Your task to perform on an android device: add a contact Image 0: 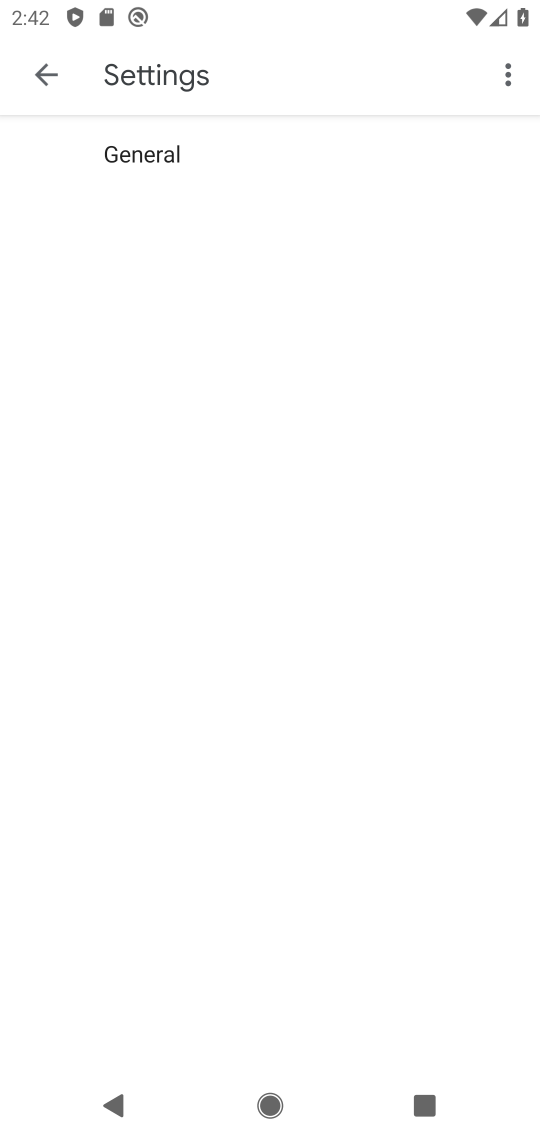
Step 0: press home button
Your task to perform on an android device: add a contact Image 1: 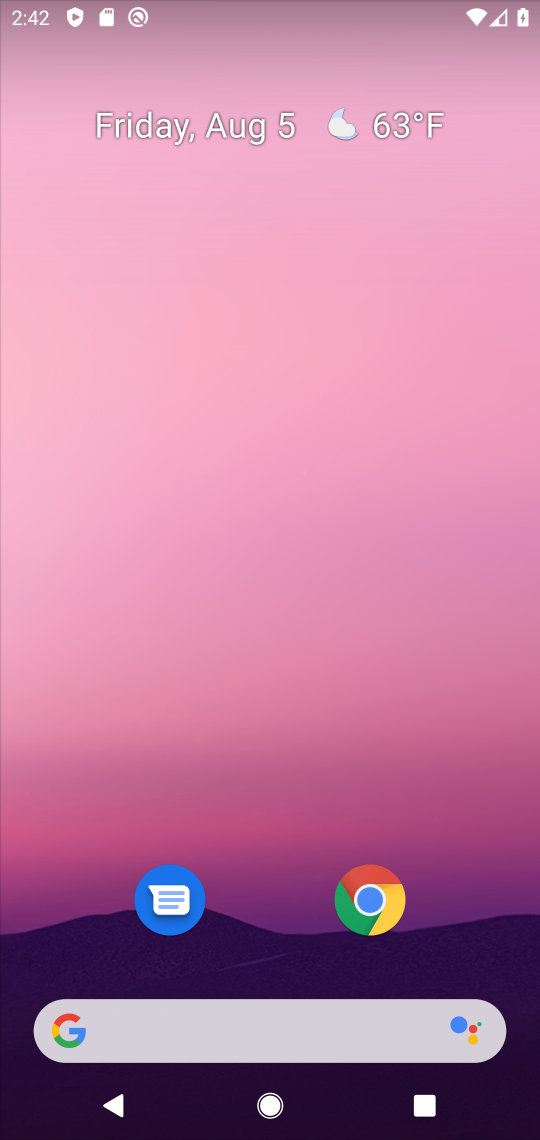
Step 1: drag from (272, 974) to (236, 40)
Your task to perform on an android device: add a contact Image 2: 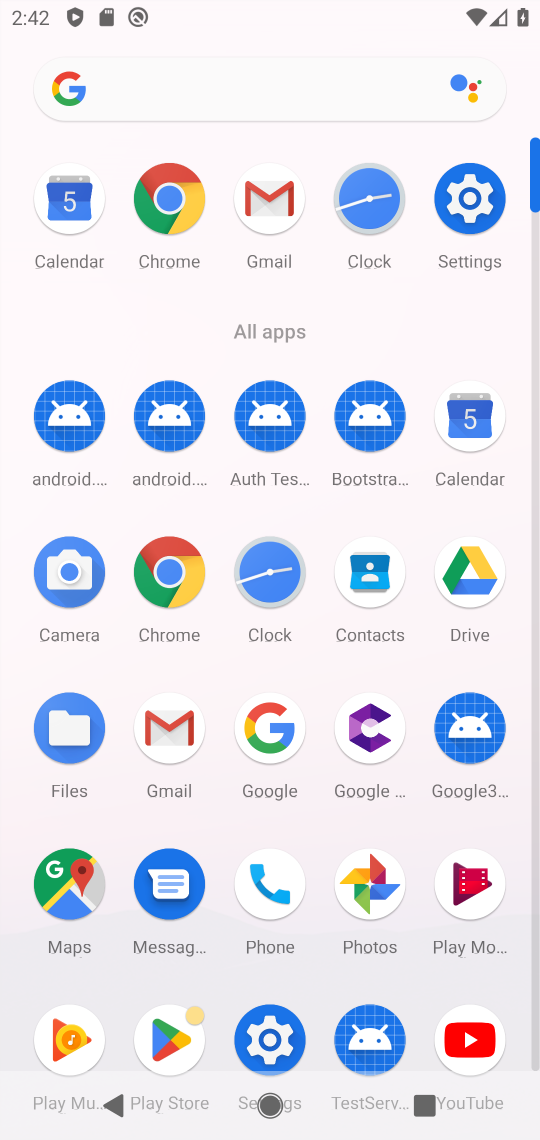
Step 2: click (356, 606)
Your task to perform on an android device: add a contact Image 3: 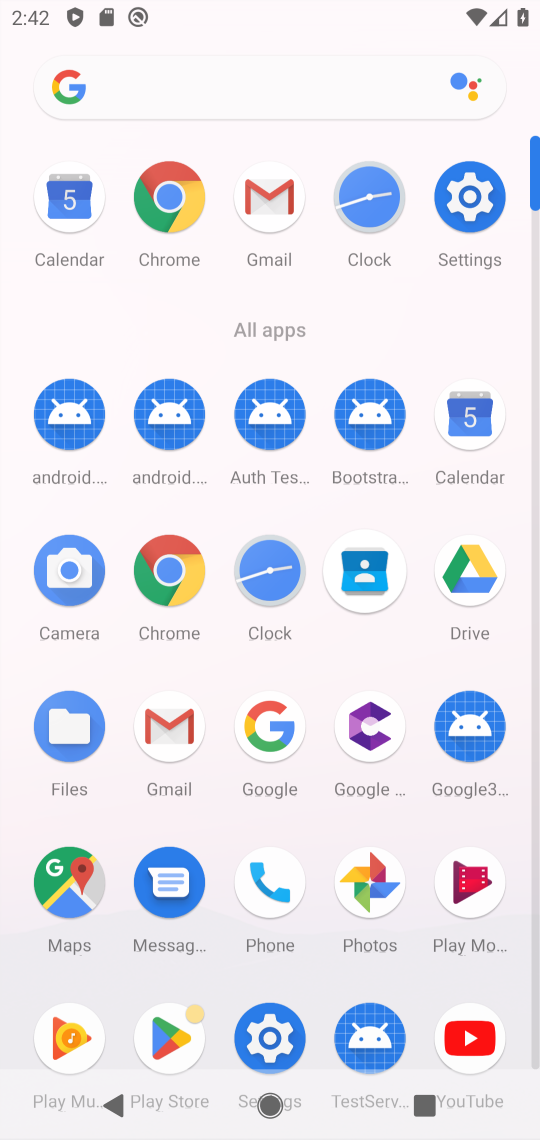
Step 3: task complete